Your task to perform on an android device: Set the phone to "Do not disturb". Image 0: 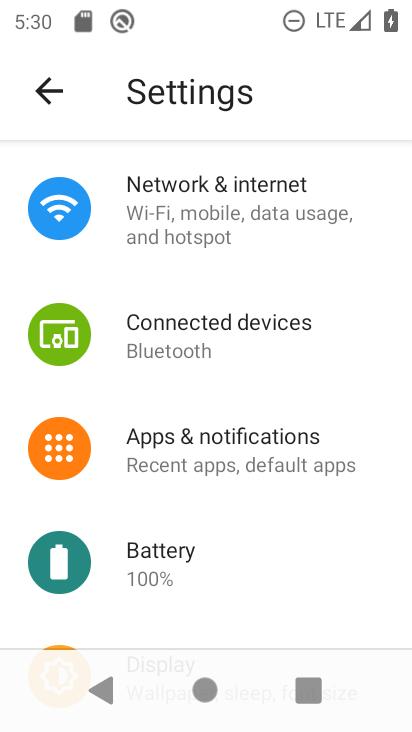
Step 0: press home button
Your task to perform on an android device: Set the phone to "Do not disturb". Image 1: 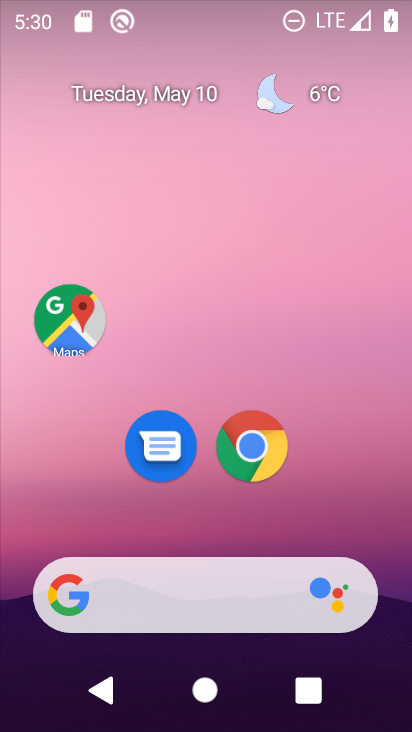
Step 1: drag from (308, 533) to (245, 131)
Your task to perform on an android device: Set the phone to "Do not disturb". Image 2: 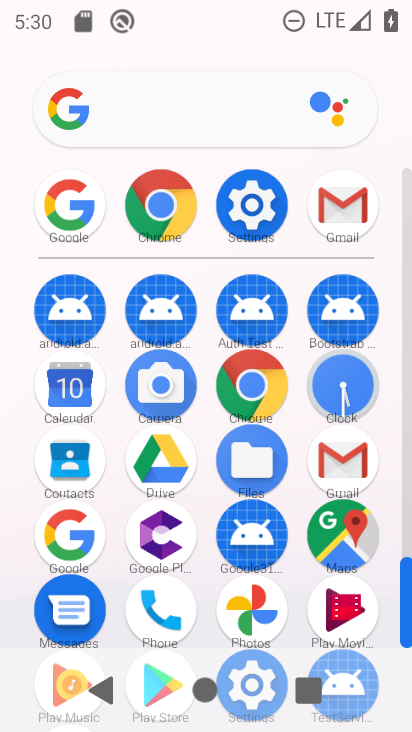
Step 2: click (249, 198)
Your task to perform on an android device: Set the phone to "Do not disturb". Image 3: 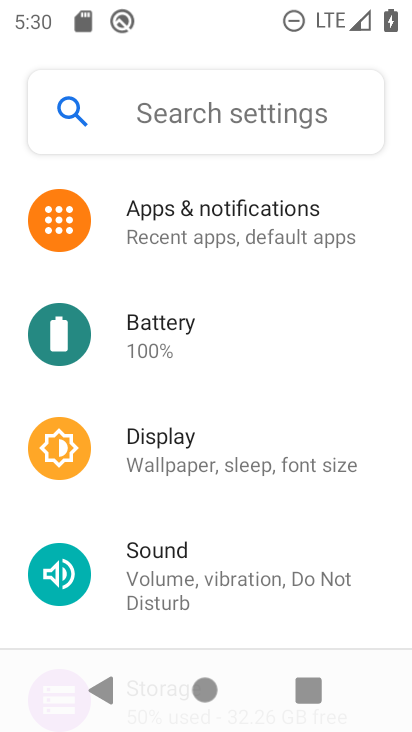
Step 3: click (217, 570)
Your task to perform on an android device: Set the phone to "Do not disturb". Image 4: 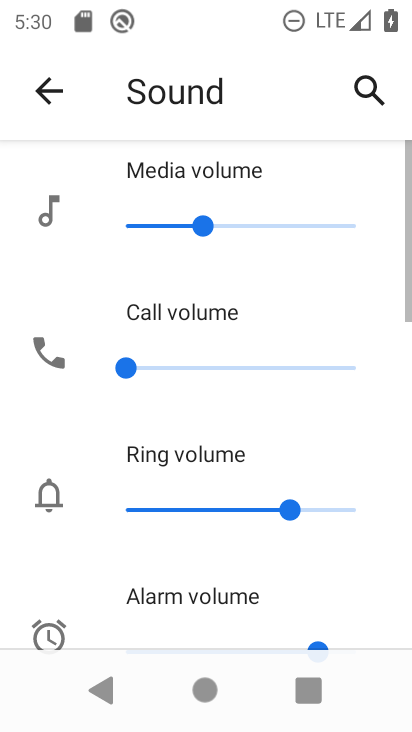
Step 4: drag from (218, 578) to (217, 171)
Your task to perform on an android device: Set the phone to "Do not disturb". Image 5: 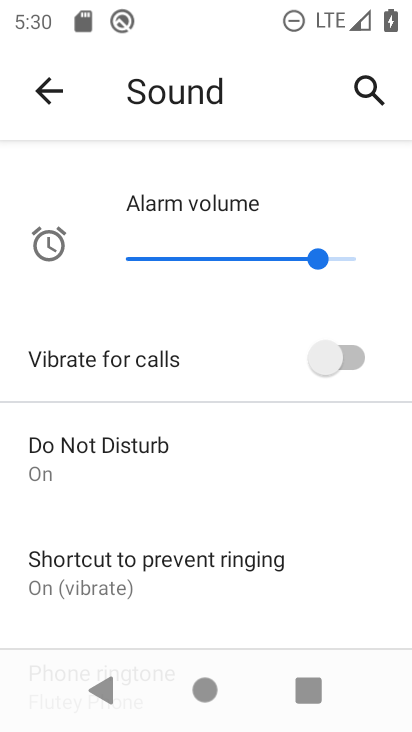
Step 5: click (182, 472)
Your task to perform on an android device: Set the phone to "Do not disturb". Image 6: 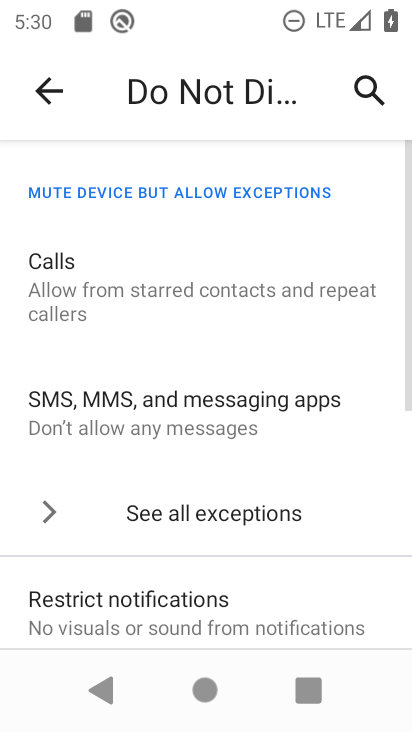
Step 6: task complete